Your task to perform on an android device: turn pop-ups on in chrome Image 0: 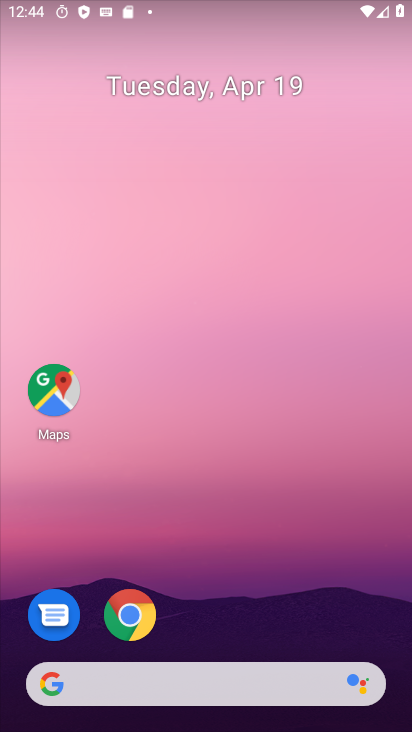
Step 0: drag from (341, 586) to (361, 93)
Your task to perform on an android device: turn pop-ups on in chrome Image 1: 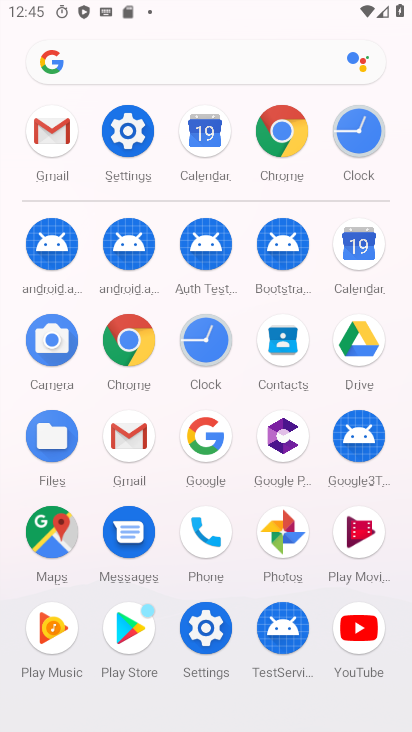
Step 1: click (134, 347)
Your task to perform on an android device: turn pop-ups on in chrome Image 2: 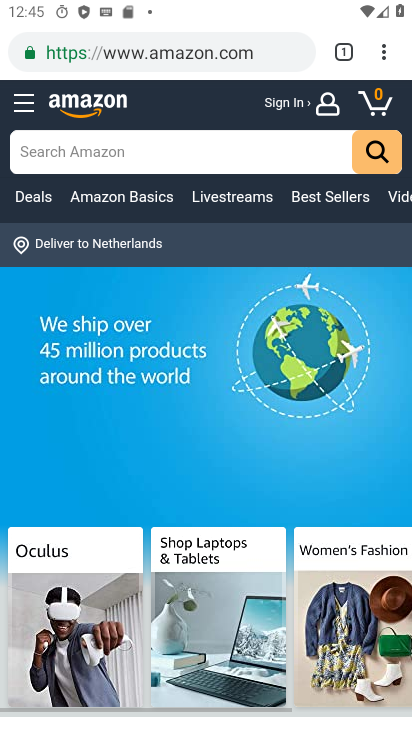
Step 2: click (382, 51)
Your task to perform on an android device: turn pop-ups on in chrome Image 3: 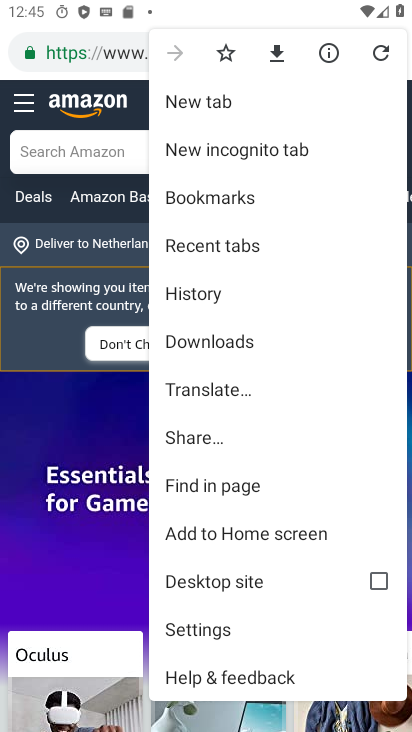
Step 3: click (214, 637)
Your task to perform on an android device: turn pop-ups on in chrome Image 4: 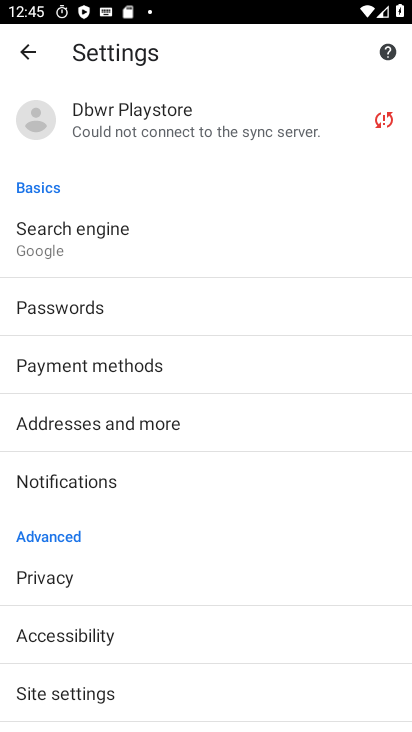
Step 4: drag from (338, 559) to (341, 379)
Your task to perform on an android device: turn pop-ups on in chrome Image 5: 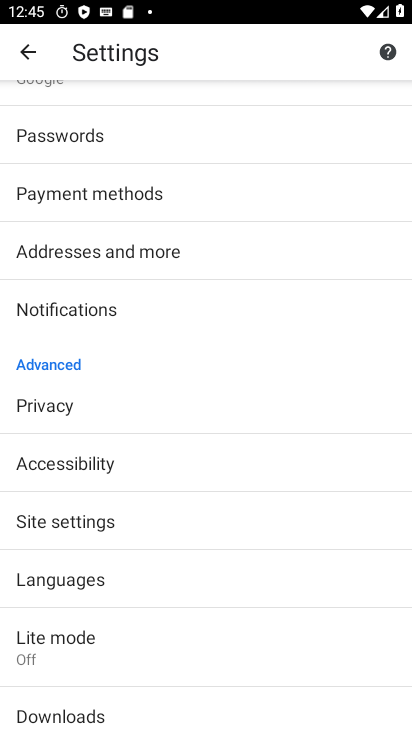
Step 5: drag from (344, 627) to (345, 419)
Your task to perform on an android device: turn pop-ups on in chrome Image 6: 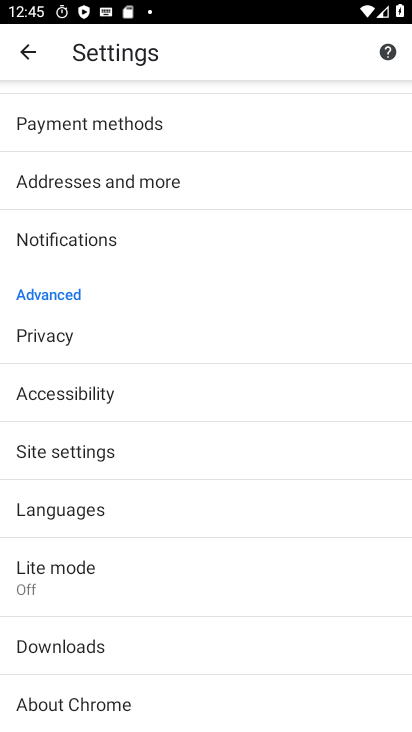
Step 6: drag from (340, 249) to (333, 425)
Your task to perform on an android device: turn pop-ups on in chrome Image 7: 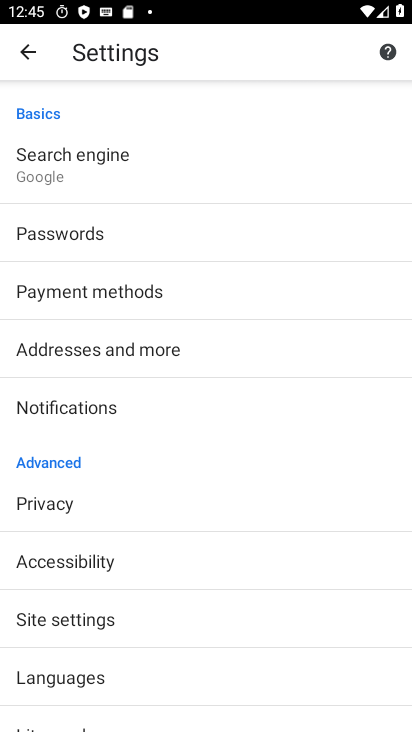
Step 7: drag from (343, 166) to (334, 411)
Your task to perform on an android device: turn pop-ups on in chrome Image 8: 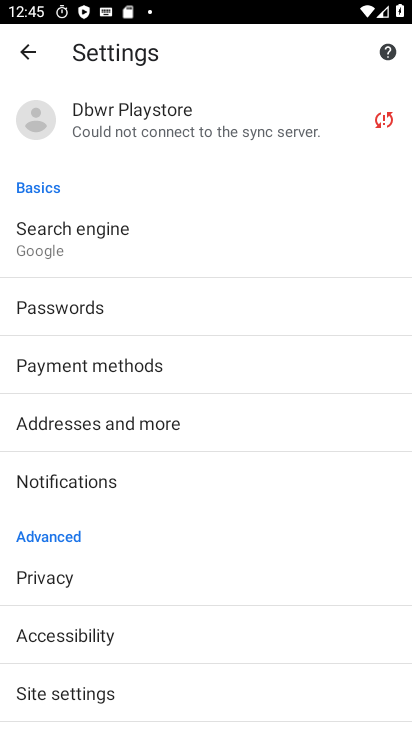
Step 8: drag from (313, 501) to (326, 301)
Your task to perform on an android device: turn pop-ups on in chrome Image 9: 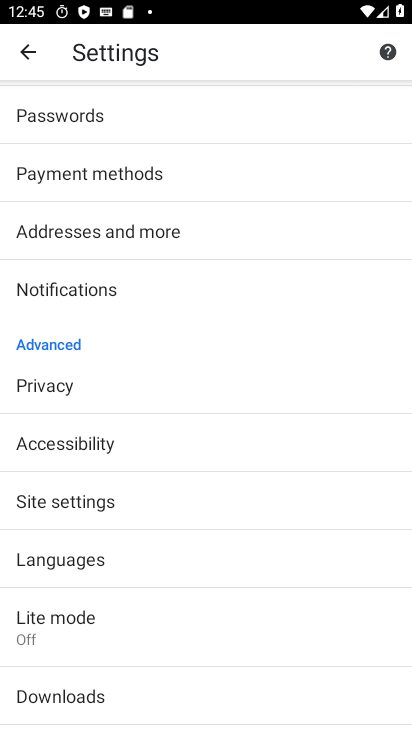
Step 9: click (285, 492)
Your task to perform on an android device: turn pop-ups on in chrome Image 10: 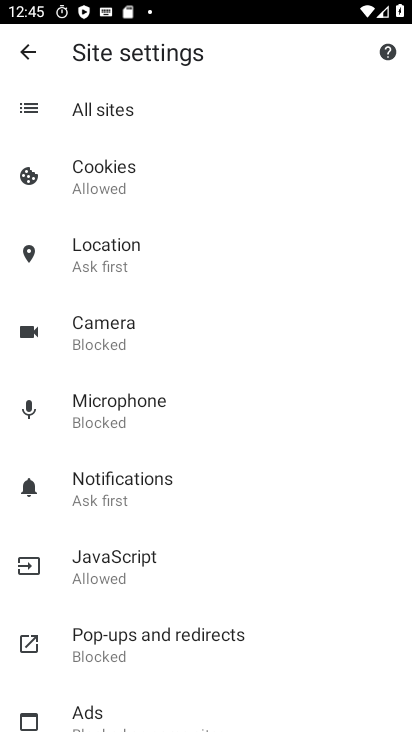
Step 10: drag from (321, 567) to (331, 386)
Your task to perform on an android device: turn pop-ups on in chrome Image 11: 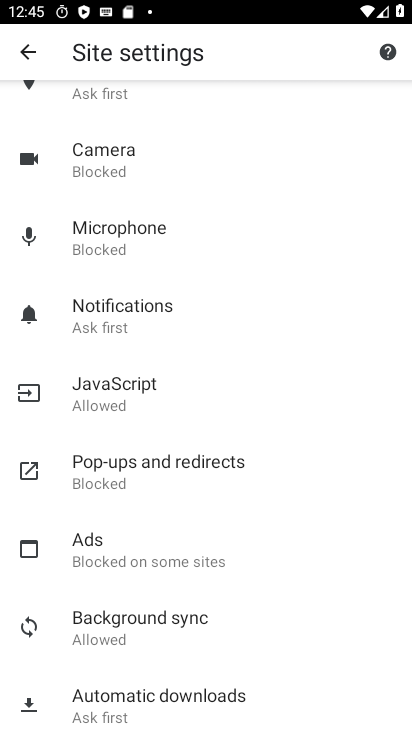
Step 11: drag from (319, 524) to (332, 347)
Your task to perform on an android device: turn pop-ups on in chrome Image 12: 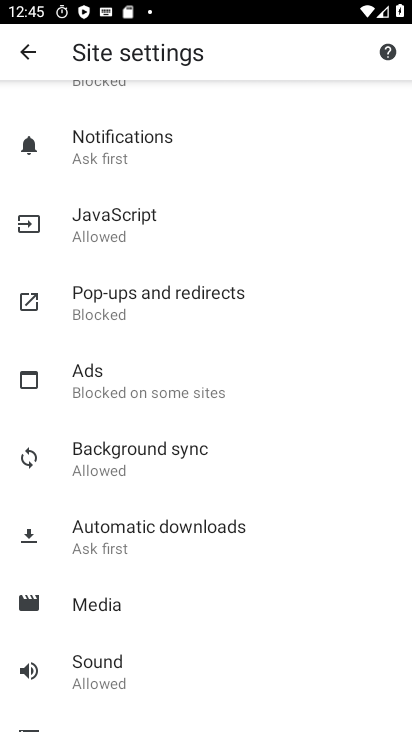
Step 12: click (138, 294)
Your task to perform on an android device: turn pop-ups on in chrome Image 13: 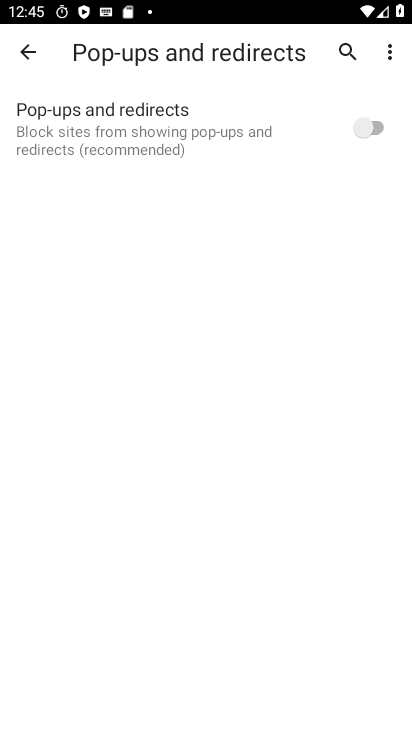
Step 13: click (355, 127)
Your task to perform on an android device: turn pop-ups on in chrome Image 14: 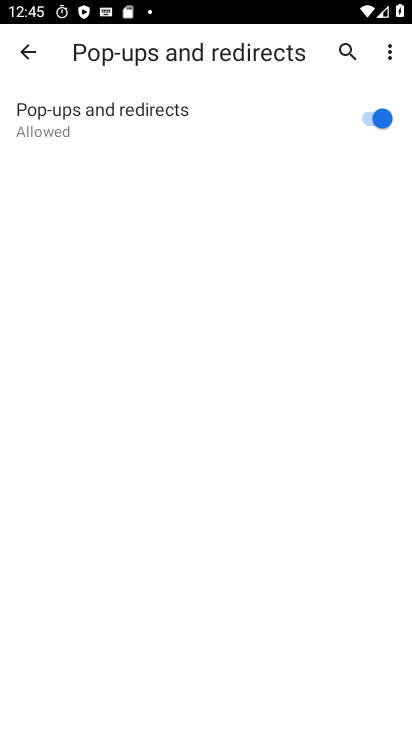
Step 14: task complete